Your task to perform on an android device: search for starred emails in the gmail app Image 0: 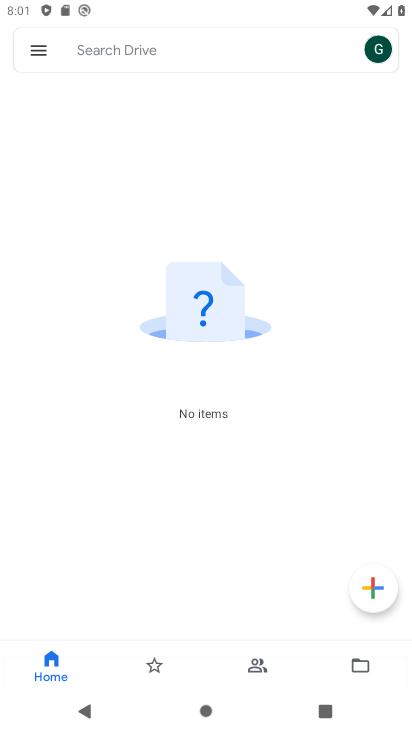
Step 0: press home button
Your task to perform on an android device: search for starred emails in the gmail app Image 1: 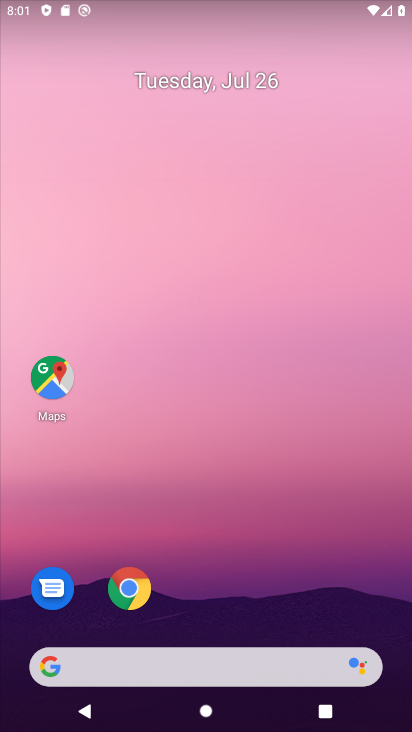
Step 1: drag from (278, 591) to (226, 102)
Your task to perform on an android device: search for starred emails in the gmail app Image 2: 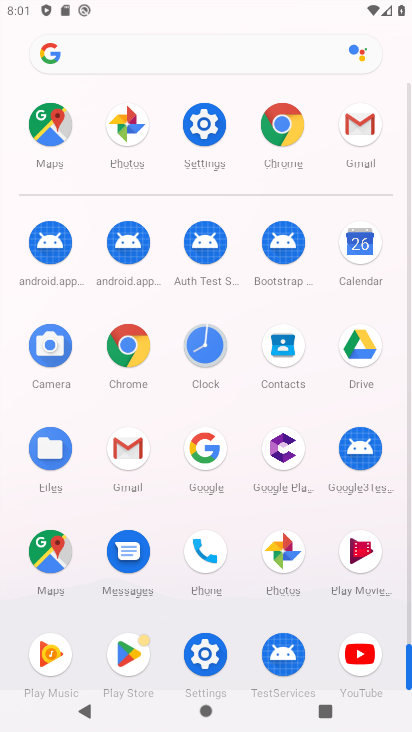
Step 2: click (347, 118)
Your task to perform on an android device: search for starred emails in the gmail app Image 3: 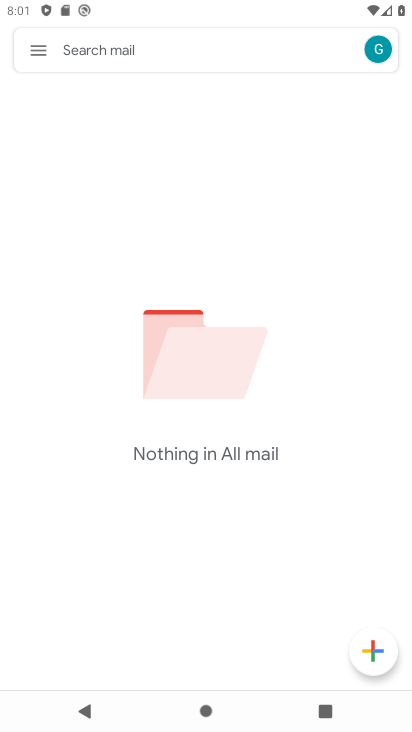
Step 3: click (44, 46)
Your task to perform on an android device: search for starred emails in the gmail app Image 4: 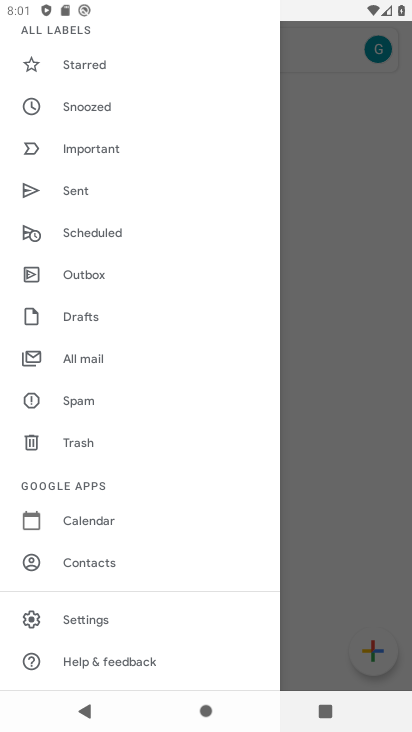
Step 4: click (98, 64)
Your task to perform on an android device: search for starred emails in the gmail app Image 5: 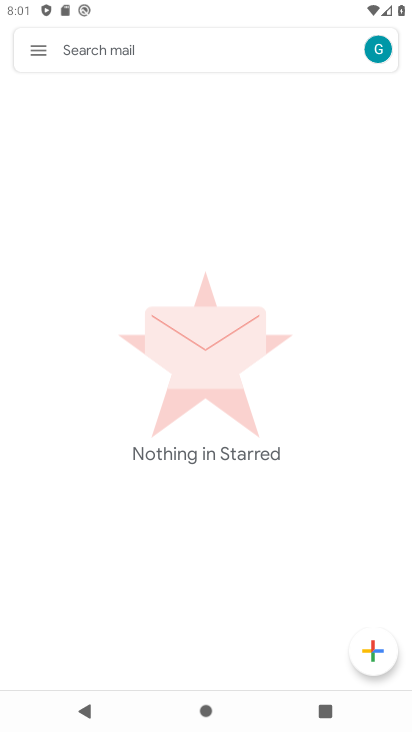
Step 5: task complete